Your task to perform on an android device: Go to notification settings Image 0: 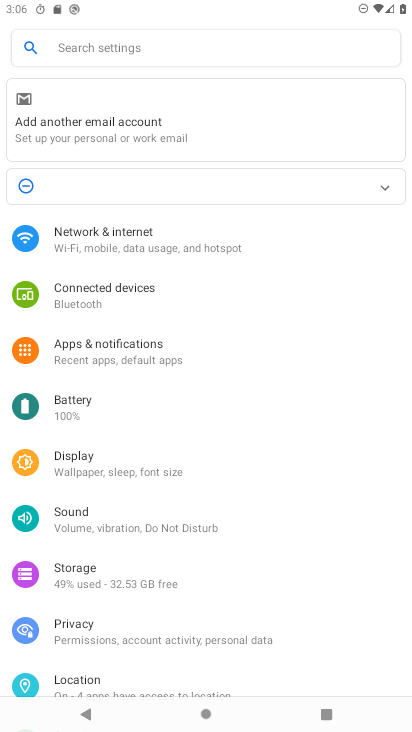
Step 0: click (175, 365)
Your task to perform on an android device: Go to notification settings Image 1: 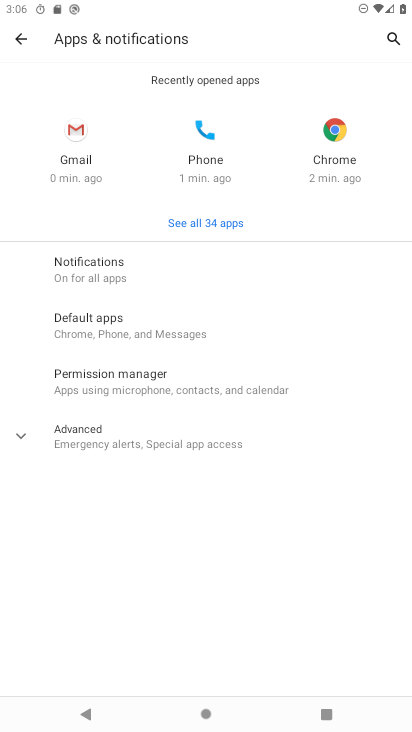
Step 1: click (175, 284)
Your task to perform on an android device: Go to notification settings Image 2: 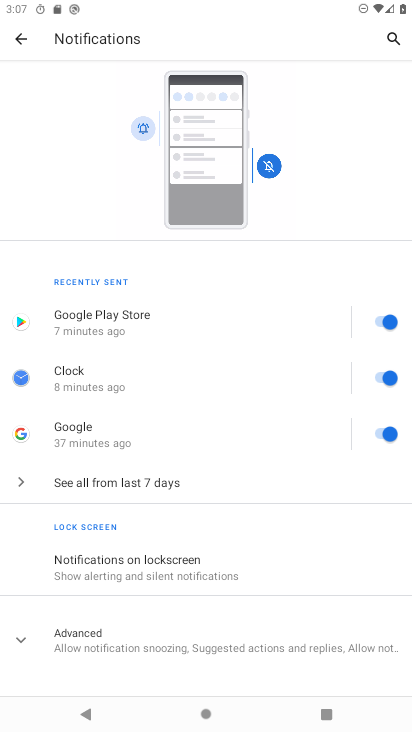
Step 2: task complete